Your task to perform on an android device: all mails in gmail Image 0: 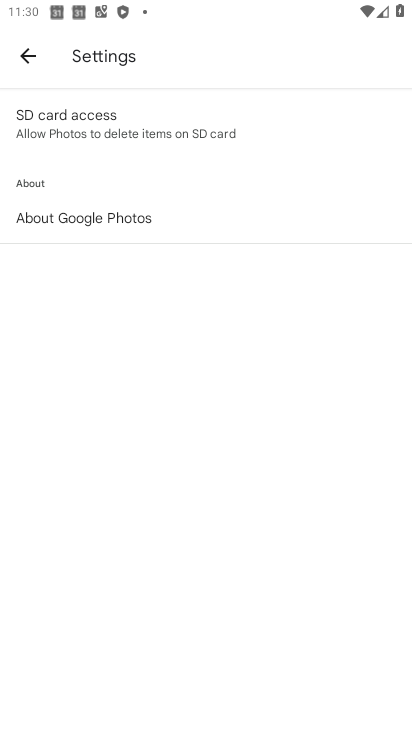
Step 0: press home button
Your task to perform on an android device: all mails in gmail Image 1: 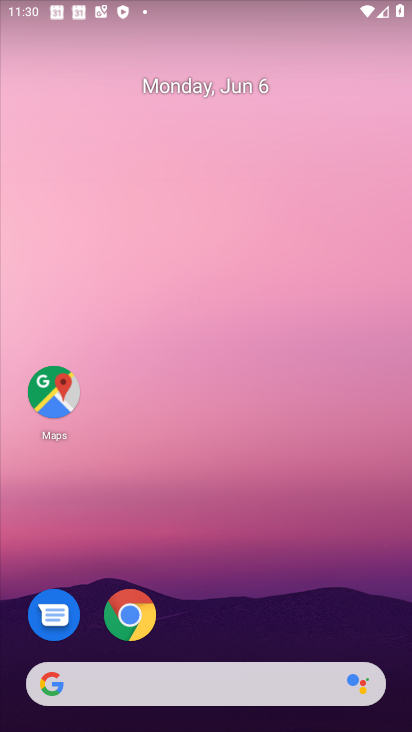
Step 1: drag from (312, 615) to (289, 44)
Your task to perform on an android device: all mails in gmail Image 2: 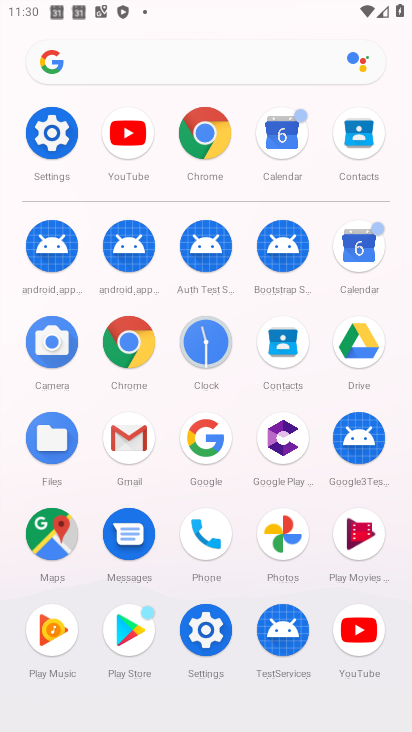
Step 2: click (124, 442)
Your task to perform on an android device: all mails in gmail Image 3: 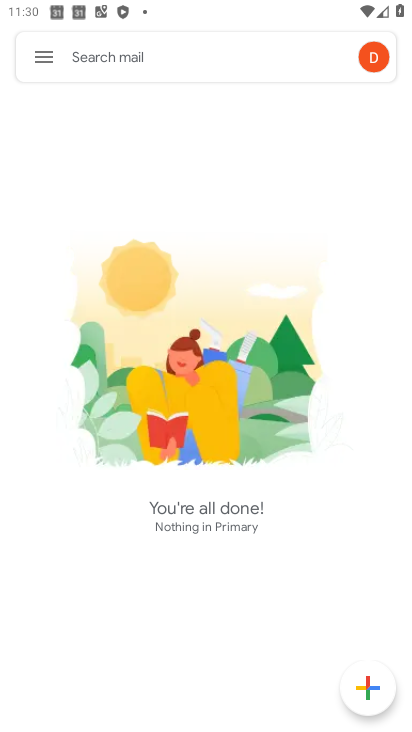
Step 3: task complete